Your task to perform on an android device: Go to location settings Image 0: 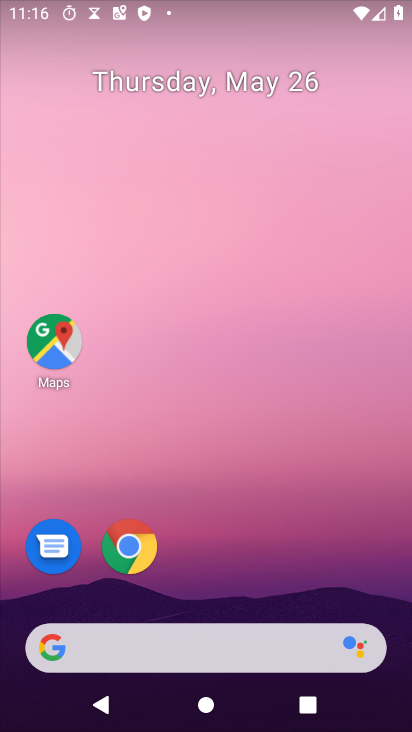
Step 0: drag from (347, 560) to (324, 91)
Your task to perform on an android device: Go to location settings Image 1: 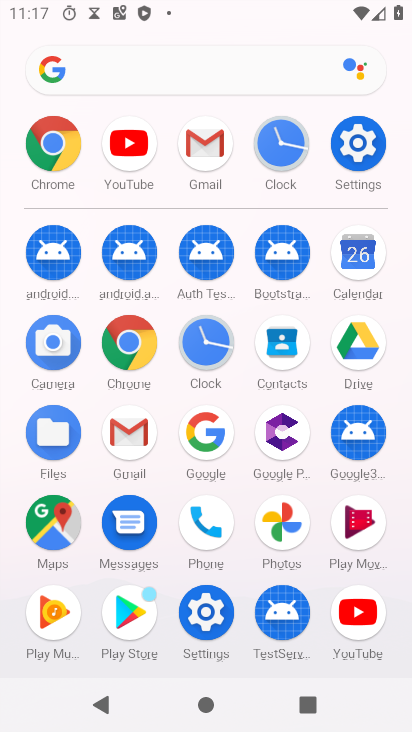
Step 1: click (211, 635)
Your task to perform on an android device: Go to location settings Image 2: 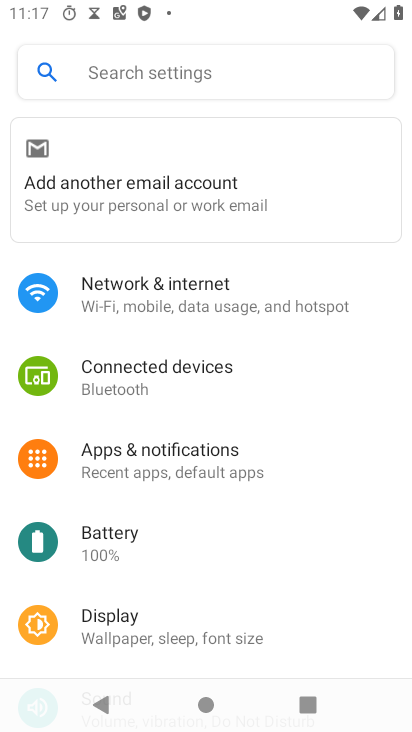
Step 2: drag from (296, 620) to (324, 266)
Your task to perform on an android device: Go to location settings Image 3: 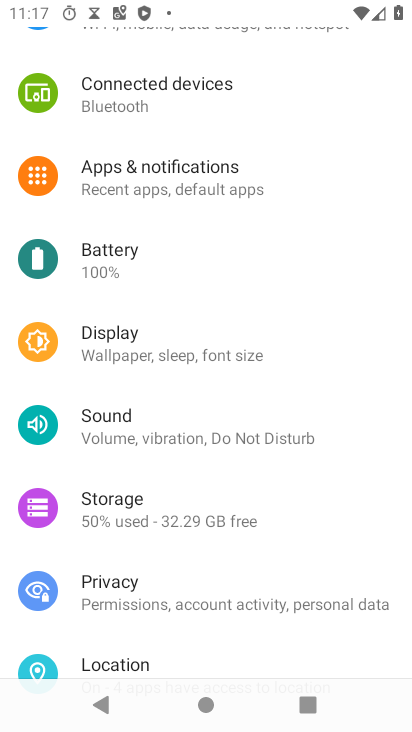
Step 3: drag from (278, 636) to (320, 283)
Your task to perform on an android device: Go to location settings Image 4: 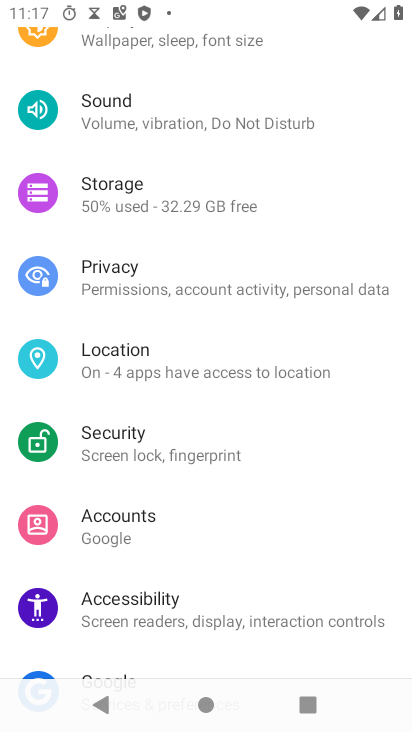
Step 4: click (114, 342)
Your task to perform on an android device: Go to location settings Image 5: 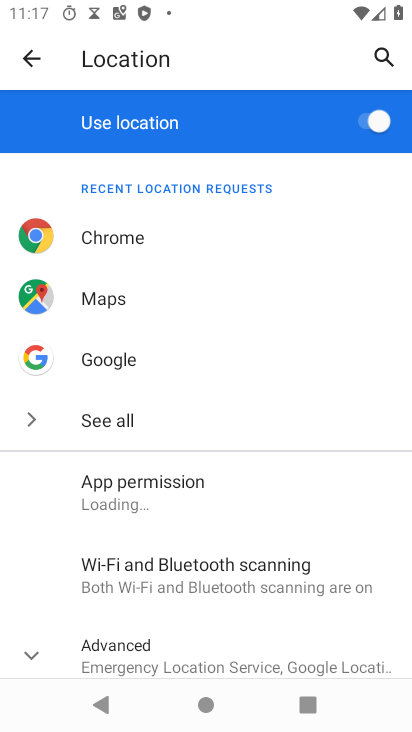
Step 5: task complete